Your task to perform on an android device: Open calendar and show me the third week of next month Image 0: 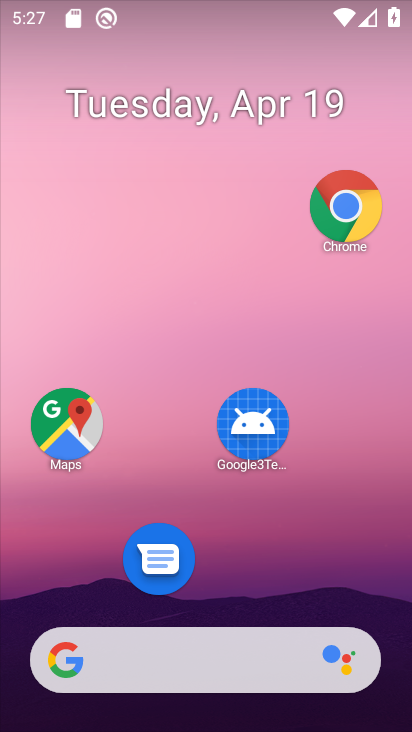
Step 0: drag from (198, 698) to (349, 285)
Your task to perform on an android device: Open calendar and show me the third week of next month Image 1: 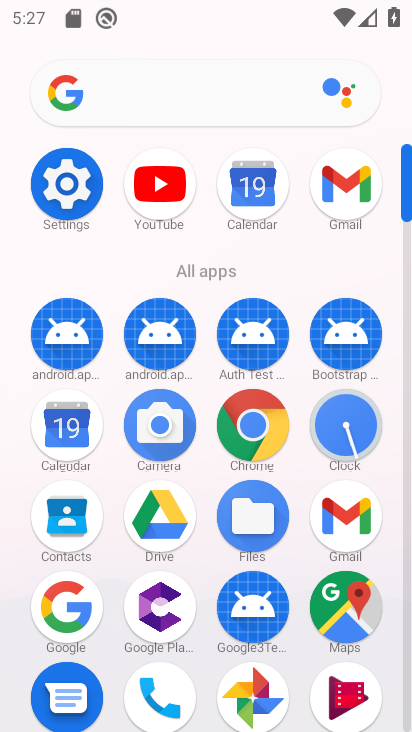
Step 1: drag from (198, 663) to (297, 364)
Your task to perform on an android device: Open calendar and show me the third week of next month Image 2: 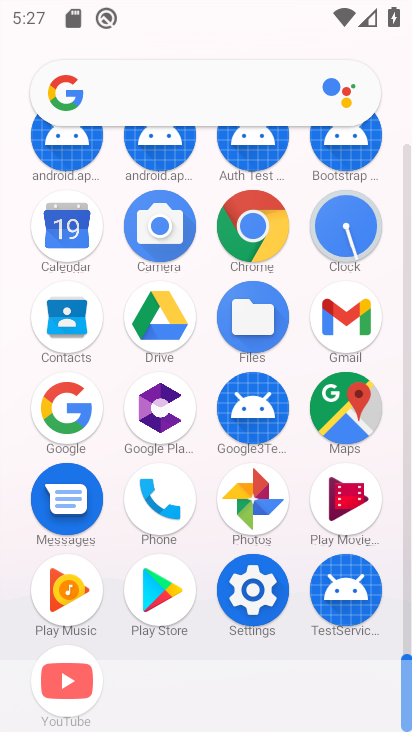
Step 2: click (65, 247)
Your task to perform on an android device: Open calendar and show me the third week of next month Image 3: 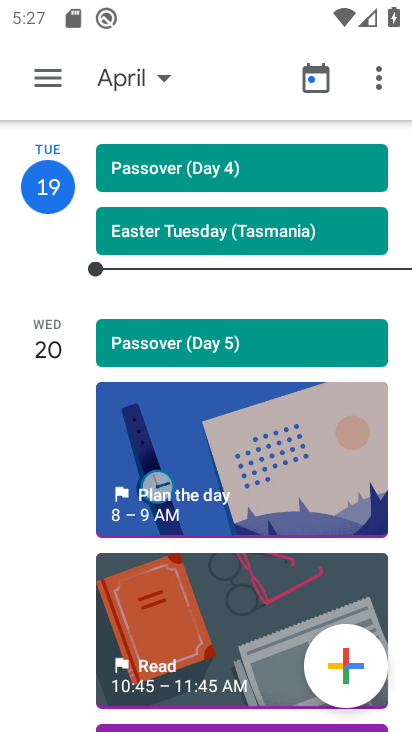
Step 3: click (164, 74)
Your task to perform on an android device: Open calendar and show me the third week of next month Image 4: 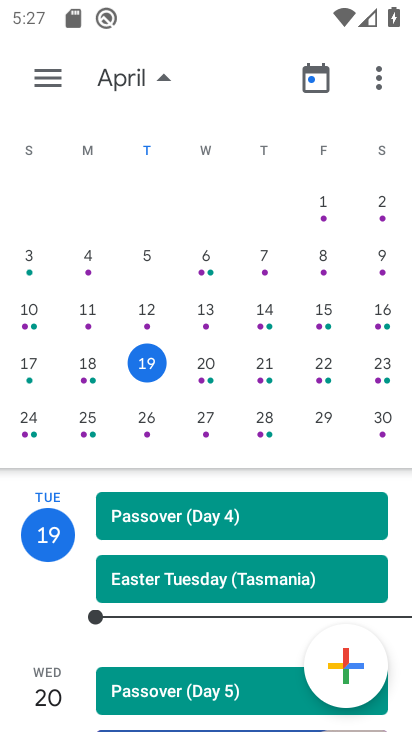
Step 4: drag from (382, 377) to (132, 326)
Your task to perform on an android device: Open calendar and show me the third week of next month Image 5: 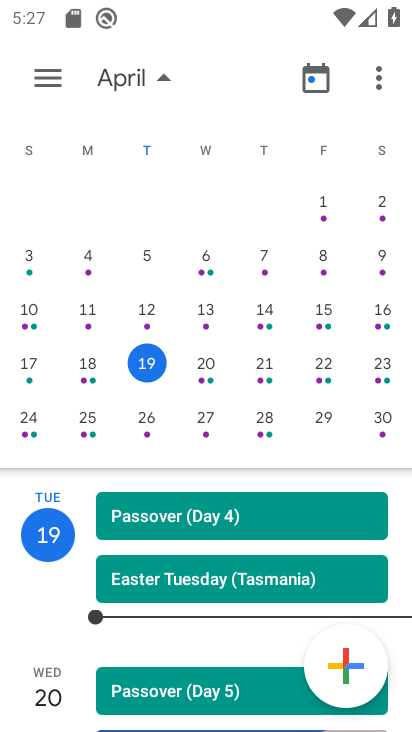
Step 5: drag from (386, 373) to (86, 312)
Your task to perform on an android device: Open calendar and show me the third week of next month Image 6: 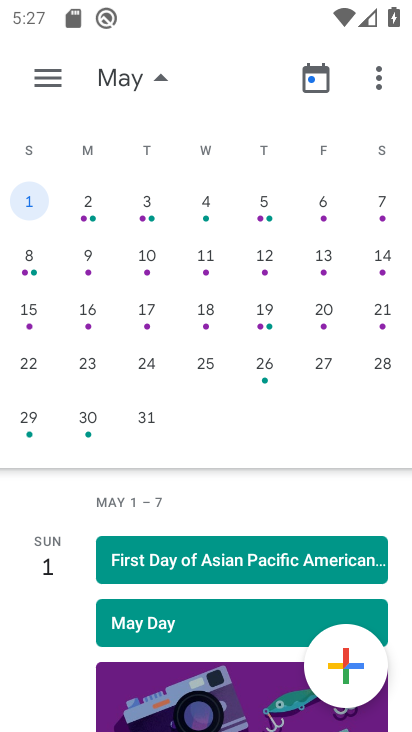
Step 6: click (258, 306)
Your task to perform on an android device: Open calendar and show me the third week of next month Image 7: 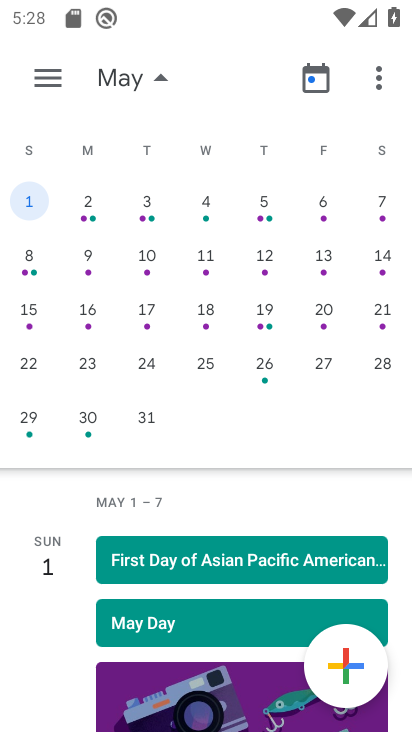
Step 7: click (199, 307)
Your task to perform on an android device: Open calendar and show me the third week of next month Image 8: 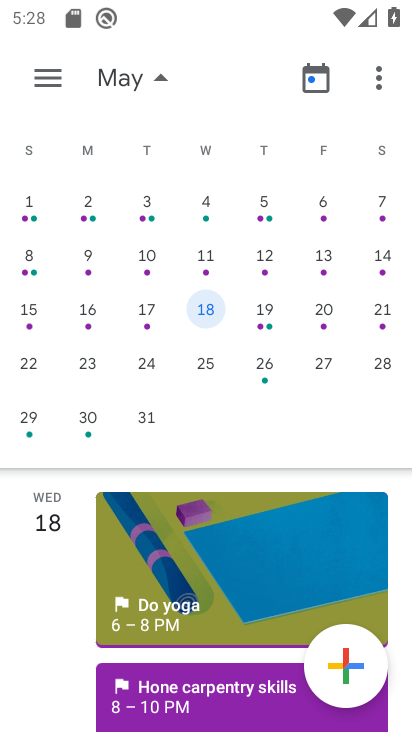
Step 8: click (214, 315)
Your task to perform on an android device: Open calendar and show me the third week of next month Image 9: 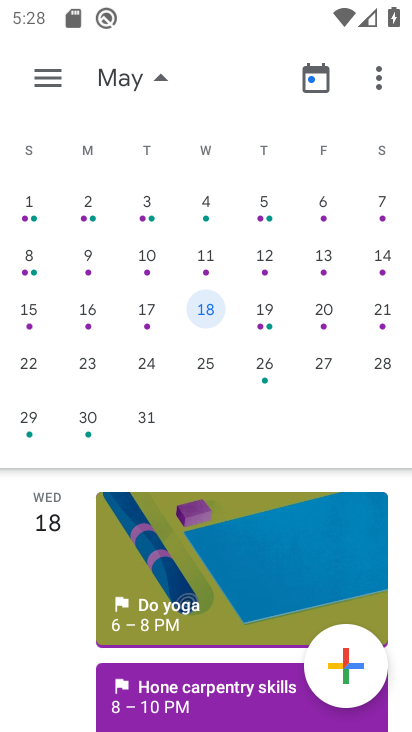
Step 9: task complete